Your task to perform on an android device: Open Yahoo.com Image 0: 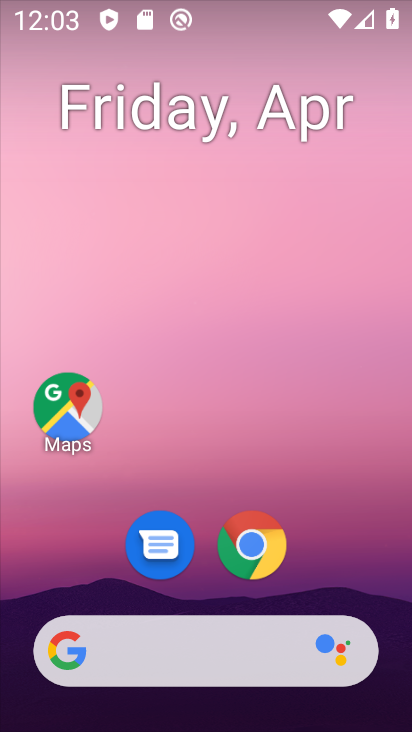
Step 0: click (248, 548)
Your task to perform on an android device: Open Yahoo.com Image 1: 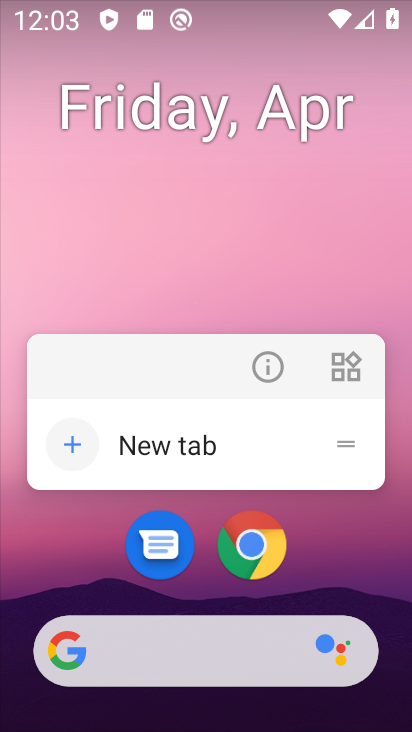
Step 1: click (263, 547)
Your task to perform on an android device: Open Yahoo.com Image 2: 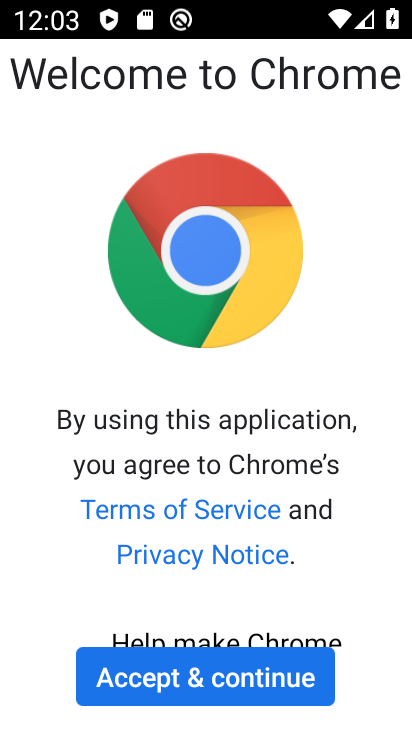
Step 2: click (268, 682)
Your task to perform on an android device: Open Yahoo.com Image 3: 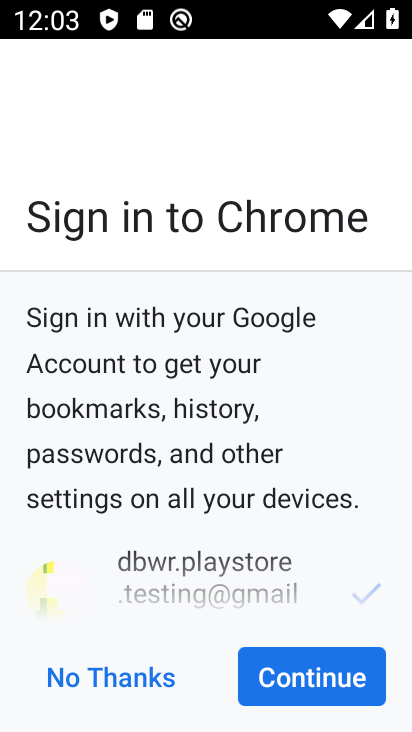
Step 3: click (272, 675)
Your task to perform on an android device: Open Yahoo.com Image 4: 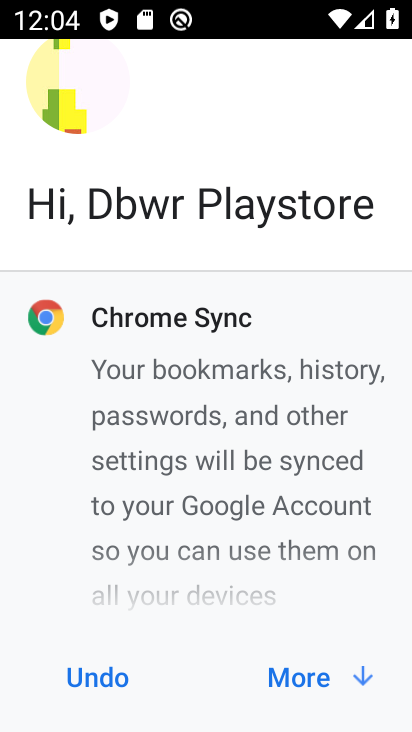
Step 4: click (311, 672)
Your task to perform on an android device: Open Yahoo.com Image 5: 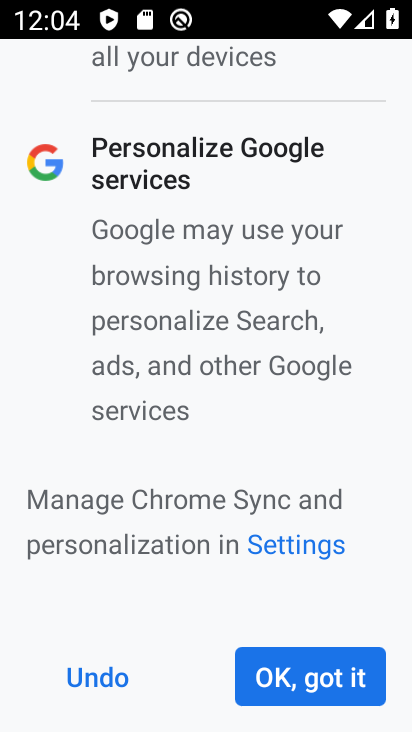
Step 5: click (311, 672)
Your task to perform on an android device: Open Yahoo.com Image 6: 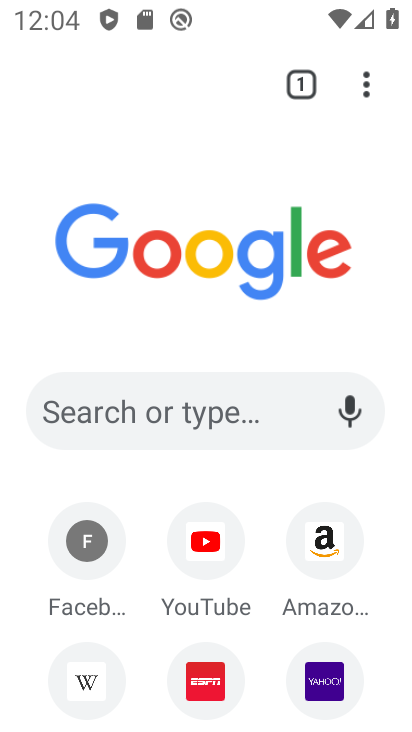
Step 6: click (211, 406)
Your task to perform on an android device: Open Yahoo.com Image 7: 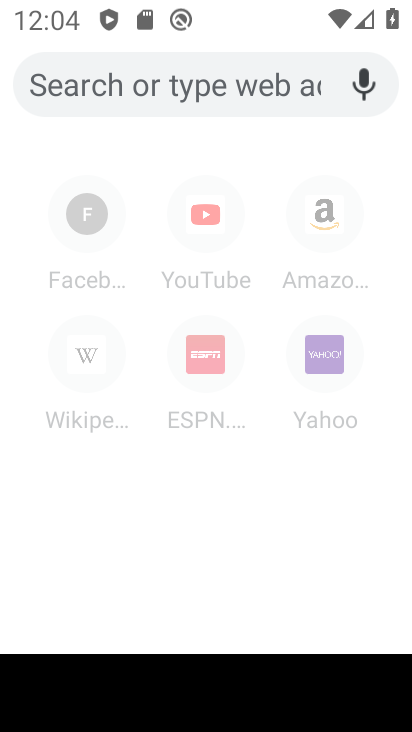
Step 7: type "yahoo.com"
Your task to perform on an android device: Open Yahoo.com Image 8: 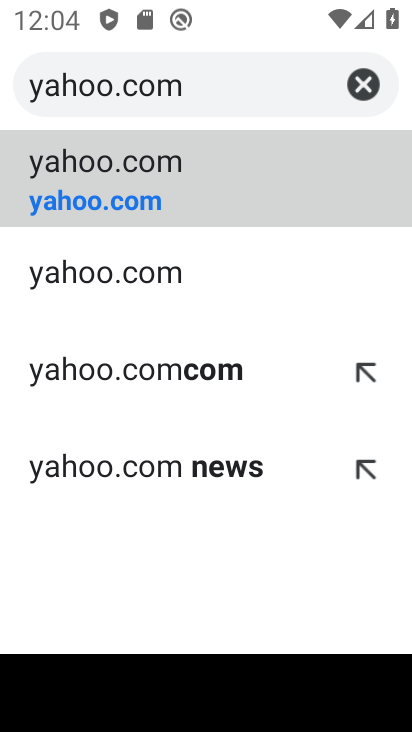
Step 8: click (97, 79)
Your task to perform on an android device: Open Yahoo.com Image 9: 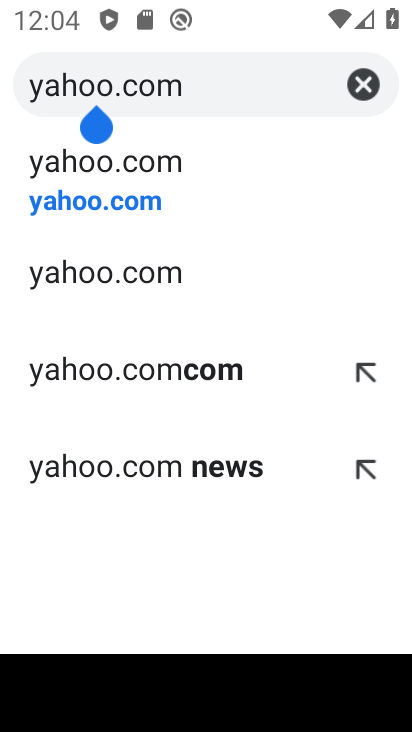
Step 9: click (212, 182)
Your task to perform on an android device: Open Yahoo.com Image 10: 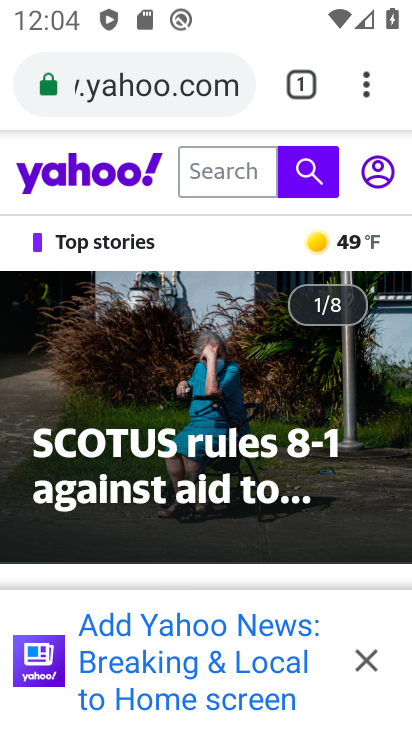
Step 10: task complete